Your task to perform on an android device: Open the web browser Image 0: 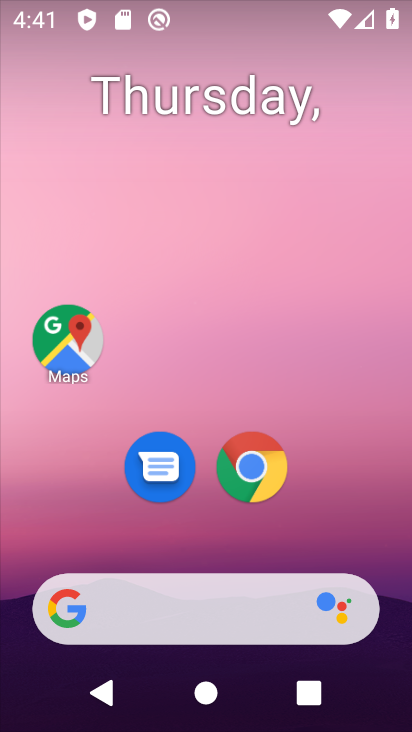
Step 0: click (259, 452)
Your task to perform on an android device: Open the web browser Image 1: 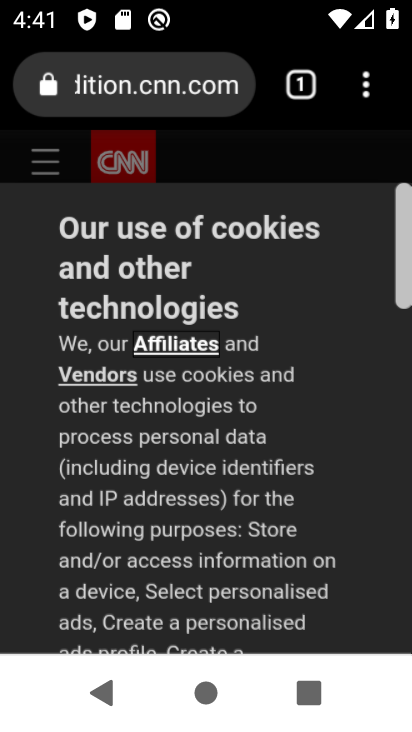
Step 1: task complete